Your task to perform on an android device: Open Google Image 0: 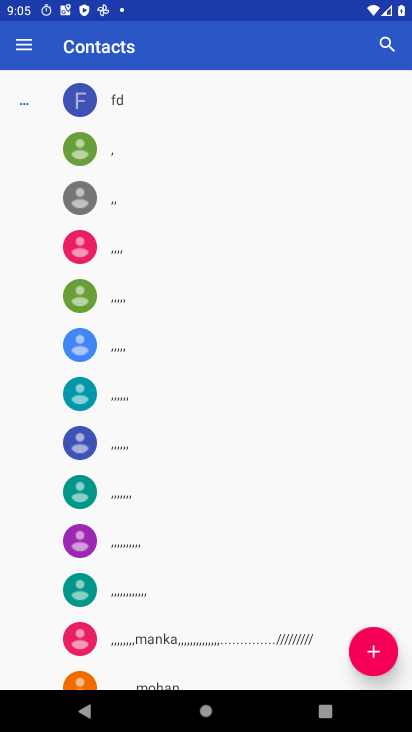
Step 0: press home button
Your task to perform on an android device: Open Google Image 1: 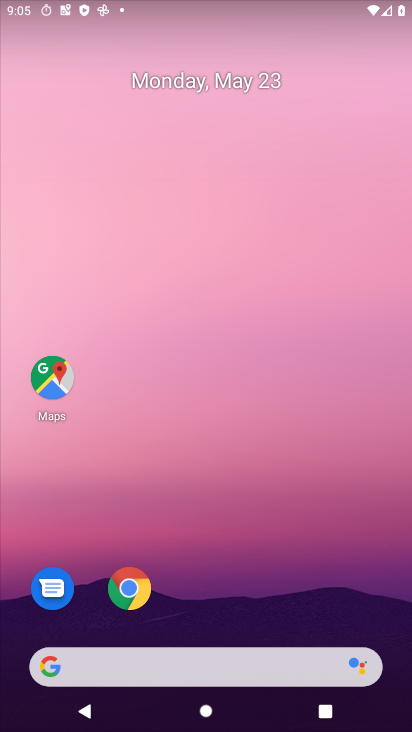
Step 1: drag from (380, 656) to (326, 218)
Your task to perform on an android device: Open Google Image 2: 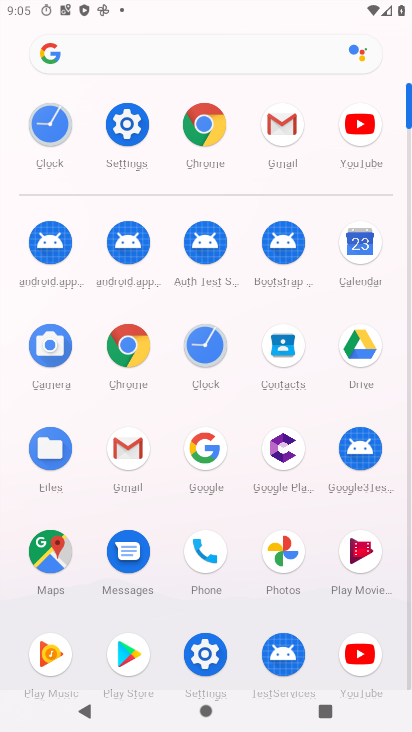
Step 2: click (198, 446)
Your task to perform on an android device: Open Google Image 3: 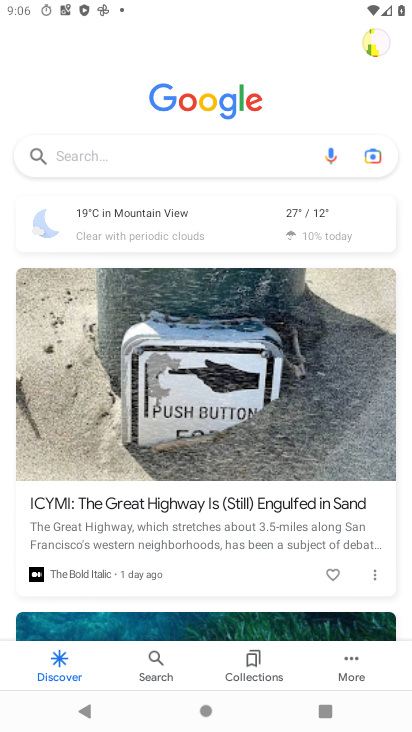
Step 3: task complete